Your task to perform on an android device: Go to Android settings Image 0: 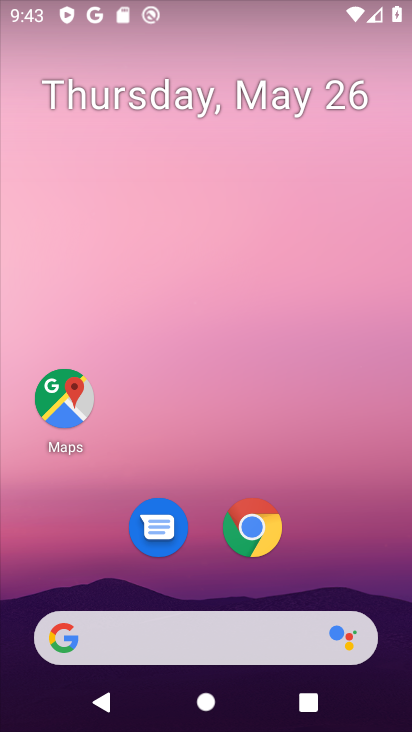
Step 0: drag from (374, 565) to (332, 154)
Your task to perform on an android device: Go to Android settings Image 1: 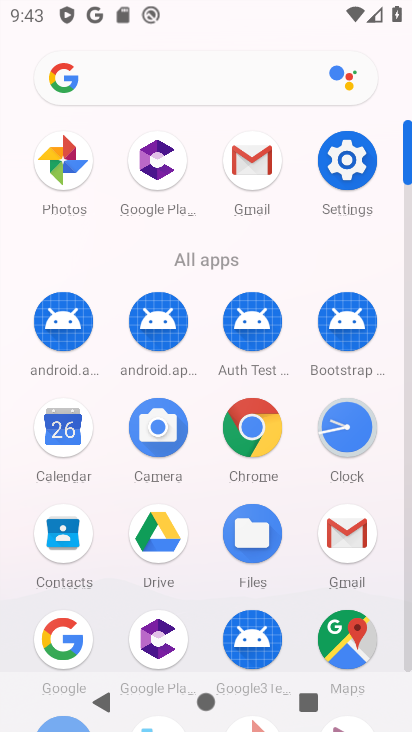
Step 1: click (355, 157)
Your task to perform on an android device: Go to Android settings Image 2: 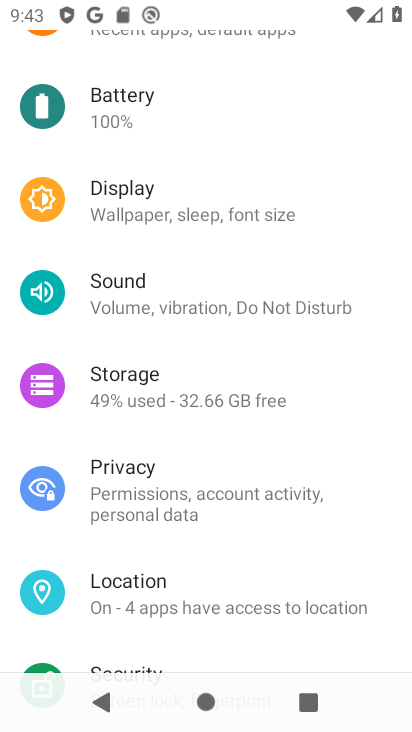
Step 2: task complete